Your task to perform on an android device: search for starred emails in the gmail app Image 0: 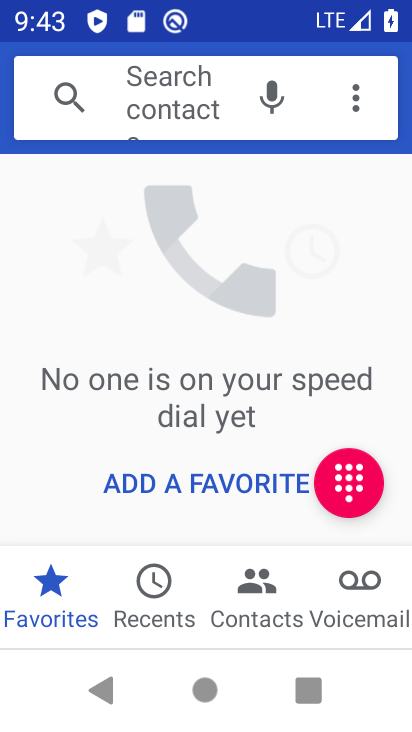
Step 0: press home button
Your task to perform on an android device: search for starred emails in the gmail app Image 1: 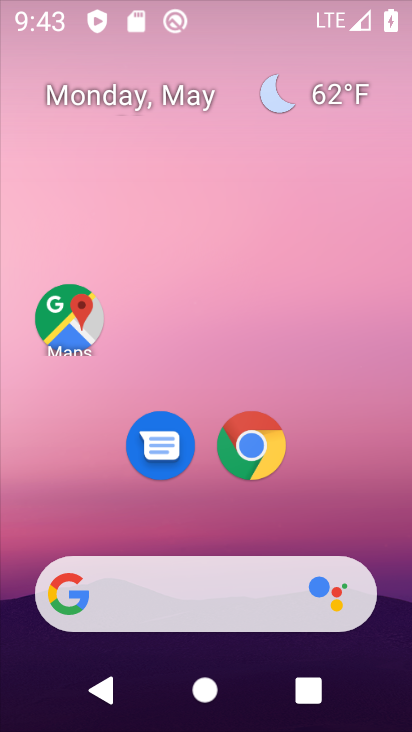
Step 1: drag from (372, 625) to (258, 139)
Your task to perform on an android device: search for starred emails in the gmail app Image 2: 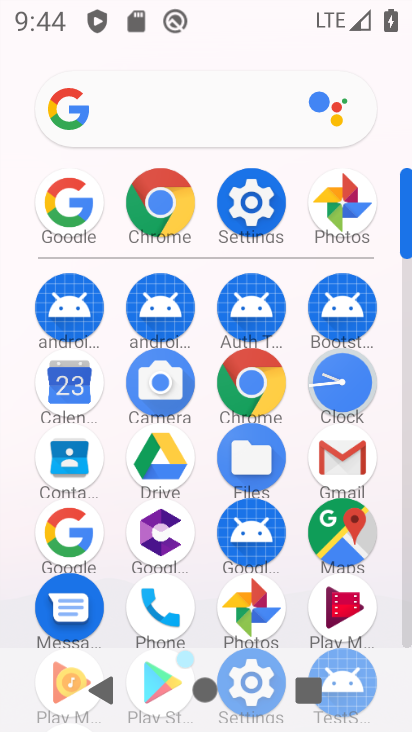
Step 2: click (352, 454)
Your task to perform on an android device: search for starred emails in the gmail app Image 3: 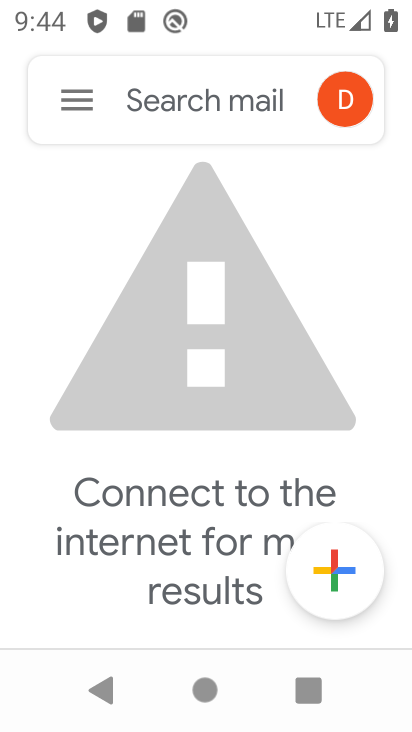
Step 3: click (99, 97)
Your task to perform on an android device: search for starred emails in the gmail app Image 4: 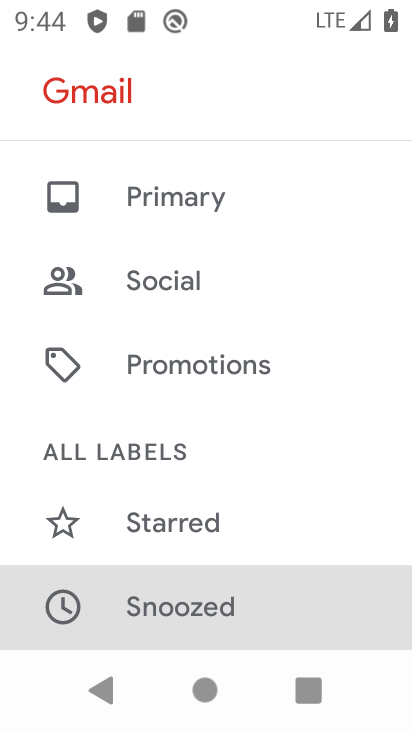
Step 4: click (180, 513)
Your task to perform on an android device: search for starred emails in the gmail app Image 5: 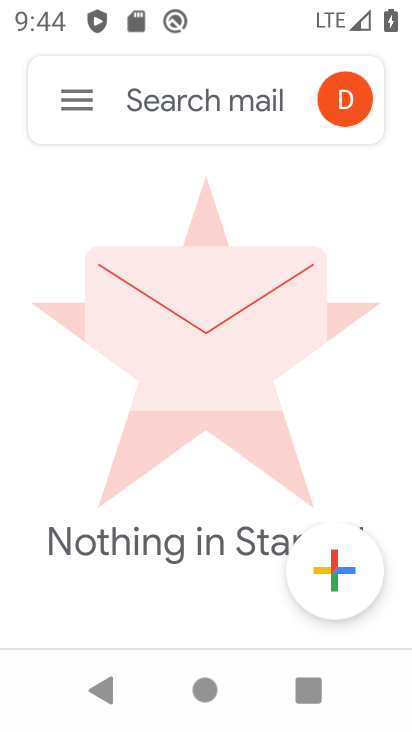
Step 5: task complete